Your task to perform on an android device: Add macbook pro 15 inch to the cart on costco Image 0: 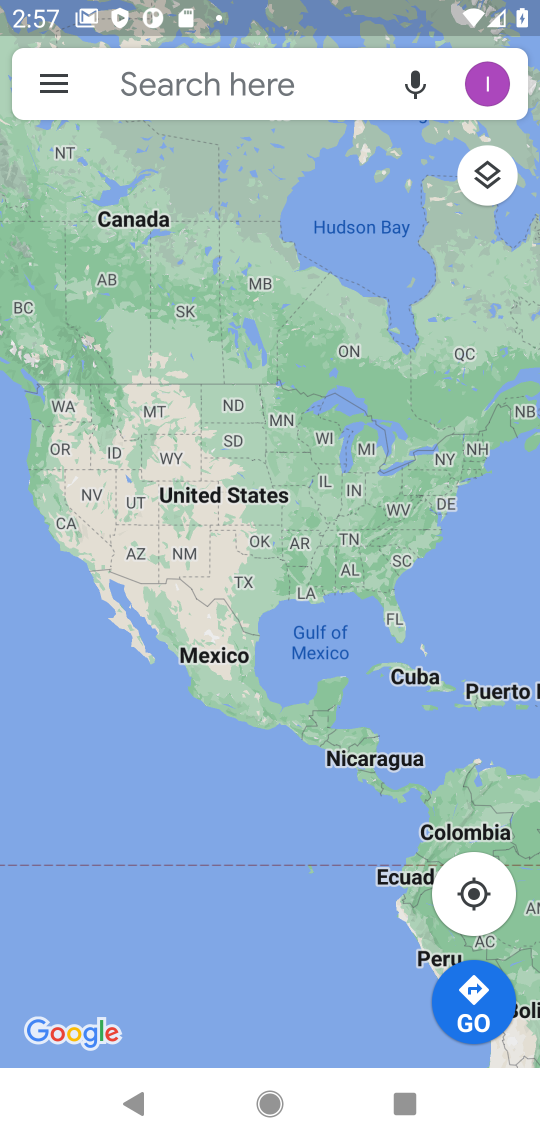
Step 0: press home button
Your task to perform on an android device: Add macbook pro 15 inch to the cart on costco Image 1: 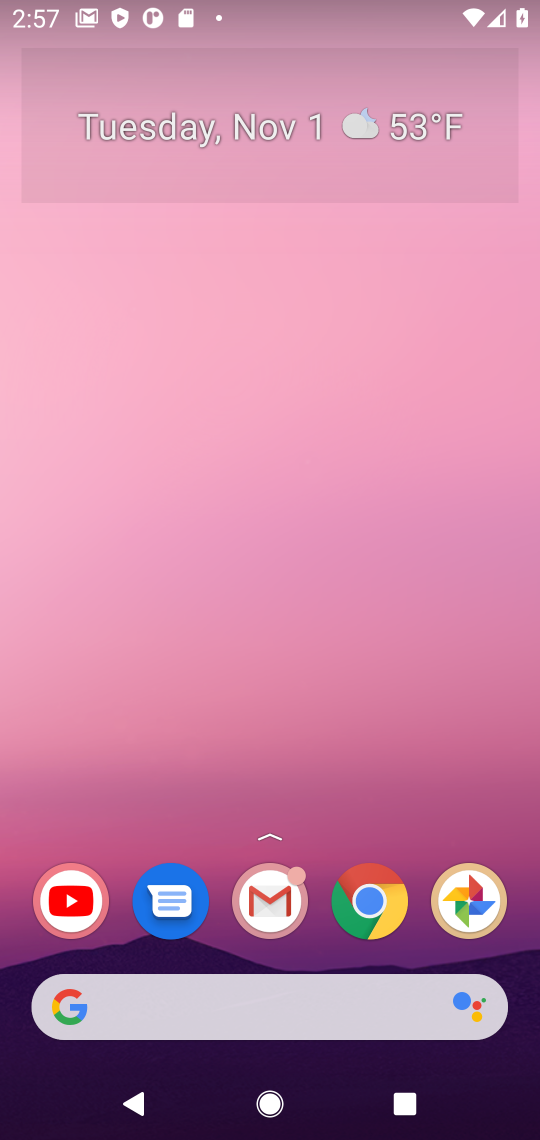
Step 1: click (370, 904)
Your task to perform on an android device: Add macbook pro 15 inch to the cart on costco Image 2: 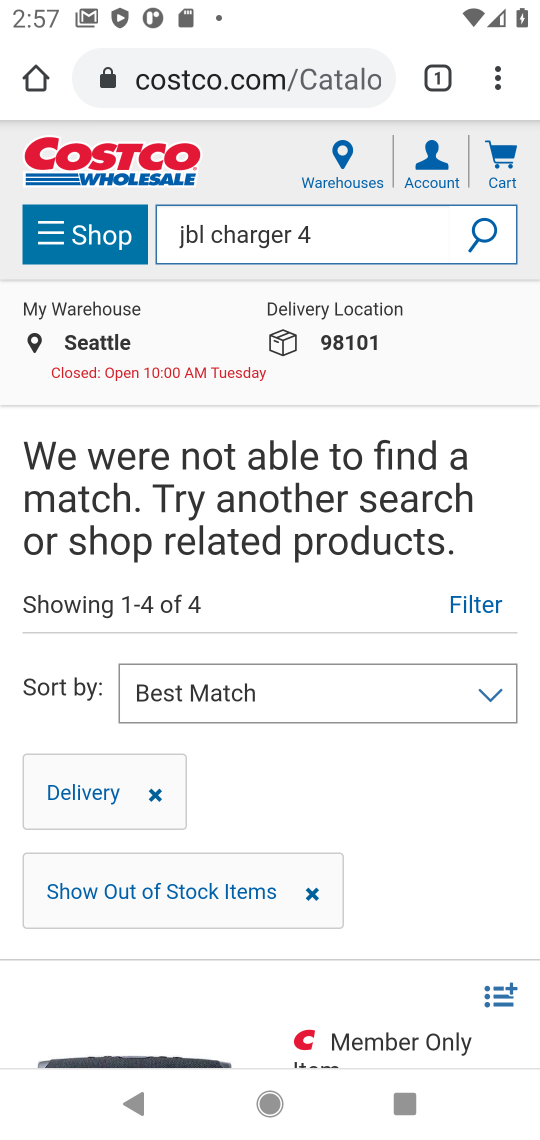
Step 2: click (320, 81)
Your task to perform on an android device: Add macbook pro 15 inch to the cart on costco Image 3: 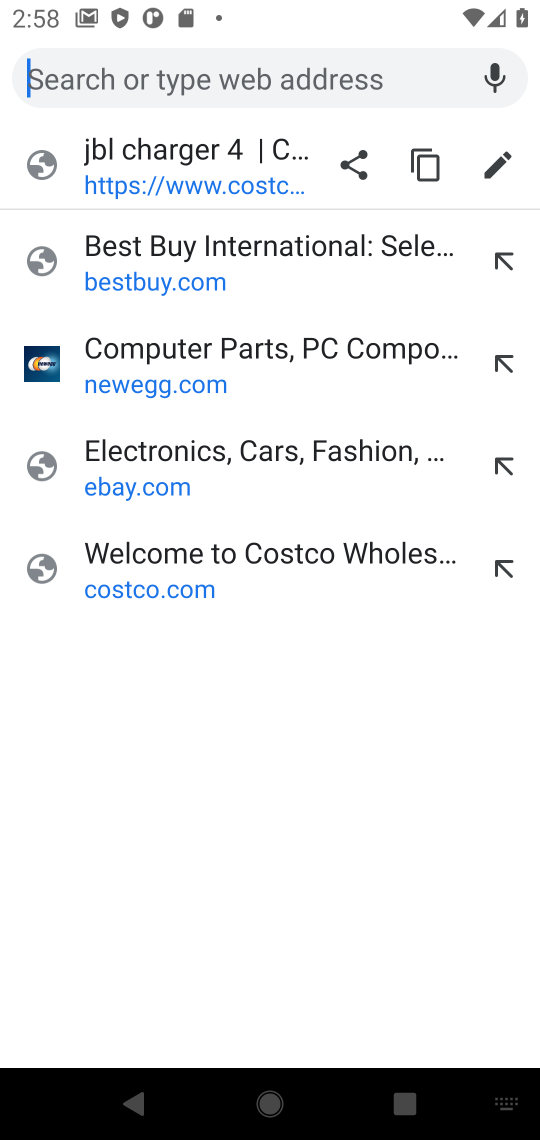
Step 3: type "costco"
Your task to perform on an android device: Add macbook pro 15 inch to the cart on costco Image 4: 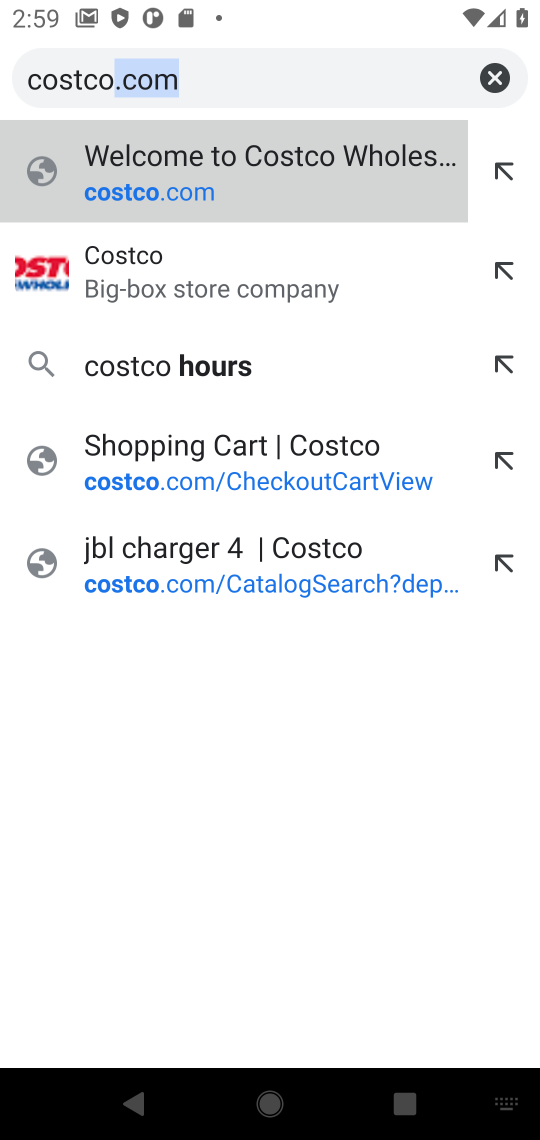
Step 4: click (244, 169)
Your task to perform on an android device: Add macbook pro 15 inch to the cart on costco Image 5: 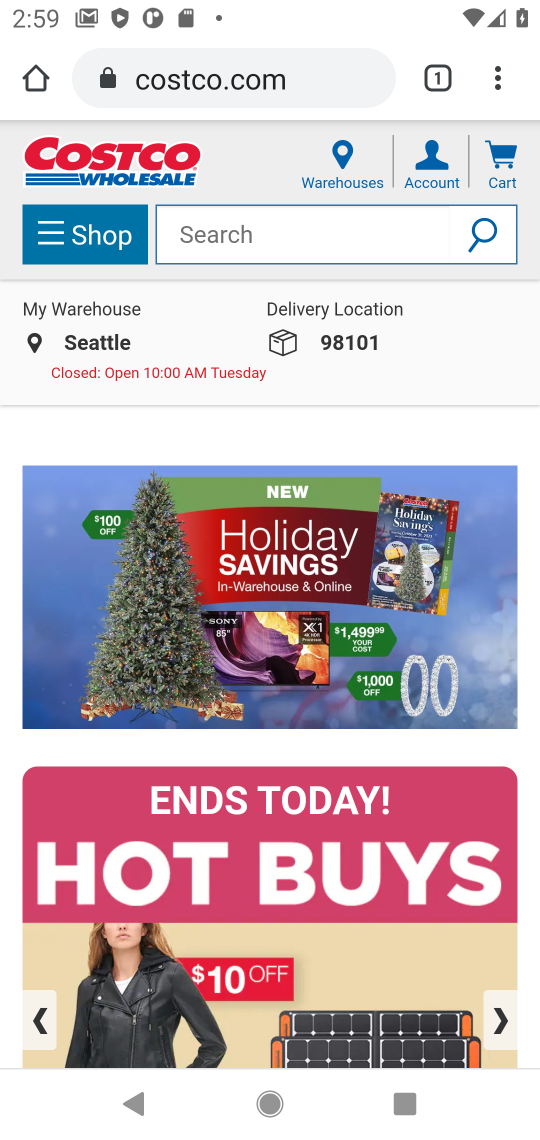
Step 5: click (323, 249)
Your task to perform on an android device: Add macbook pro 15 inch to the cart on costco Image 6: 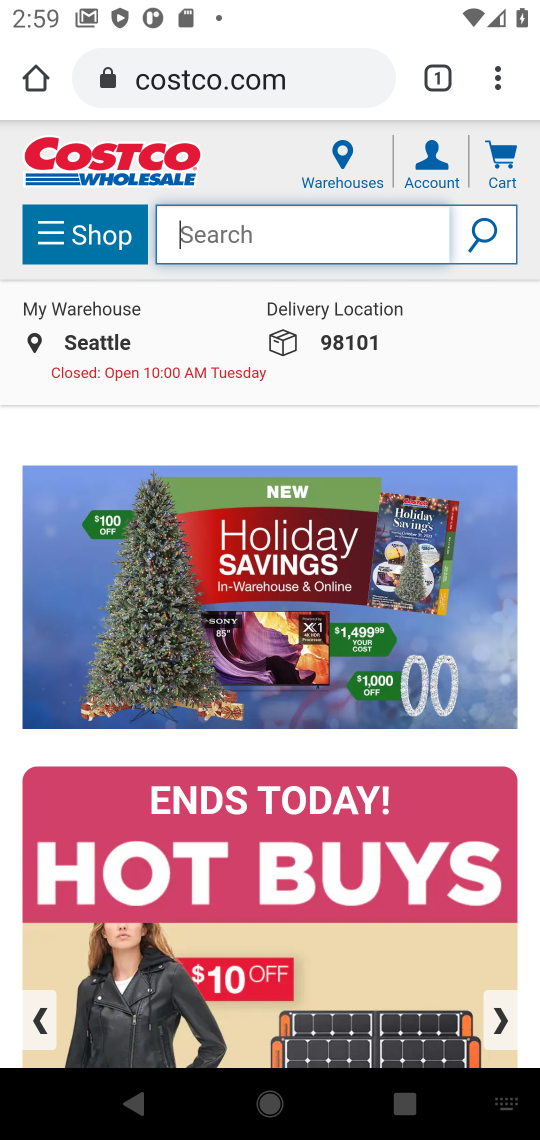
Step 6: type "macbook pro 15 inch"
Your task to perform on an android device: Add macbook pro 15 inch to the cart on costco Image 7: 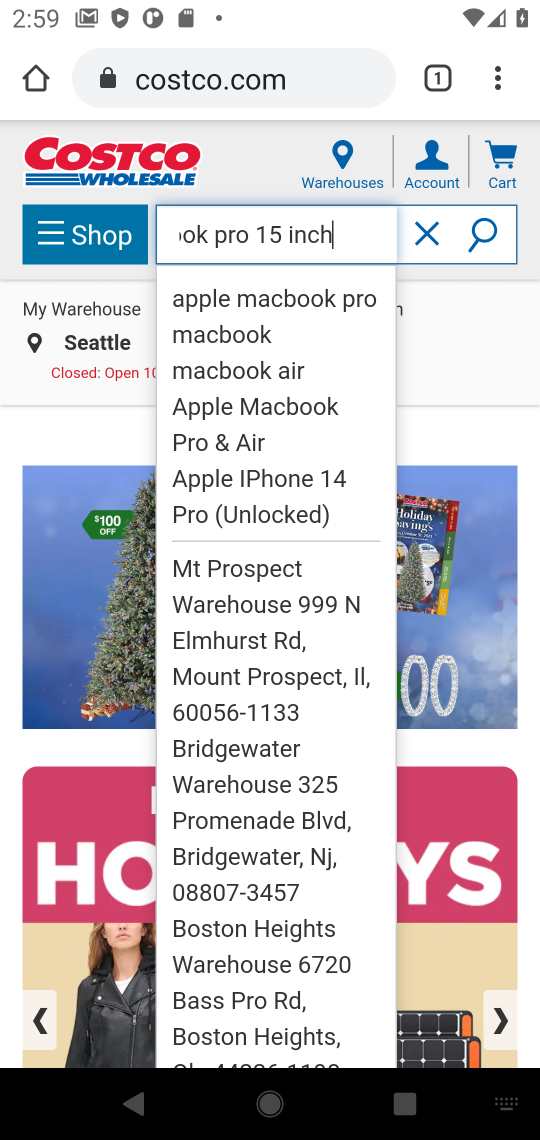
Step 7: click (479, 233)
Your task to perform on an android device: Add macbook pro 15 inch to the cart on costco Image 8: 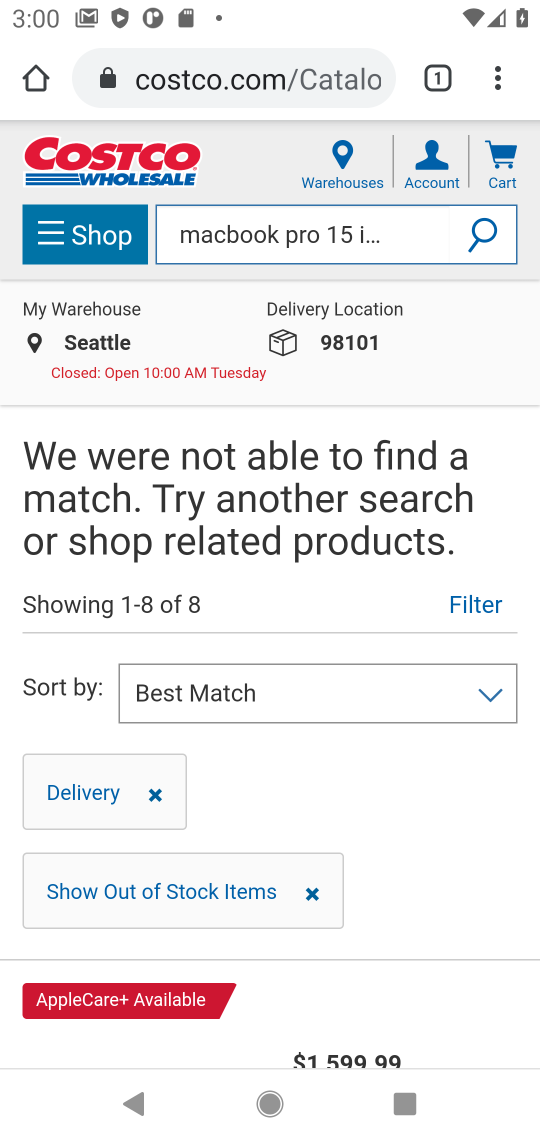
Step 8: task complete